Your task to perform on an android device: Open the calendar app, open the side menu, and click the "Day" option Image 0: 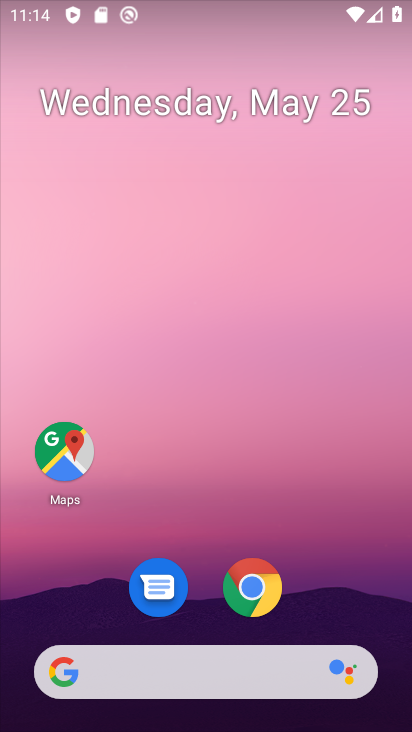
Step 0: drag from (238, 690) to (225, 130)
Your task to perform on an android device: Open the calendar app, open the side menu, and click the "Day" option Image 1: 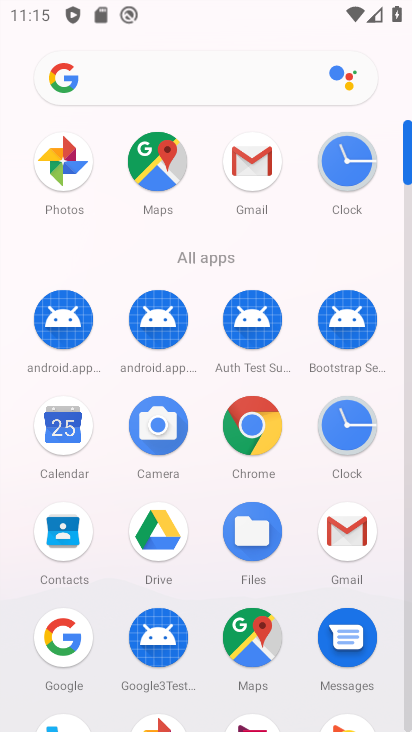
Step 1: click (48, 432)
Your task to perform on an android device: Open the calendar app, open the side menu, and click the "Day" option Image 2: 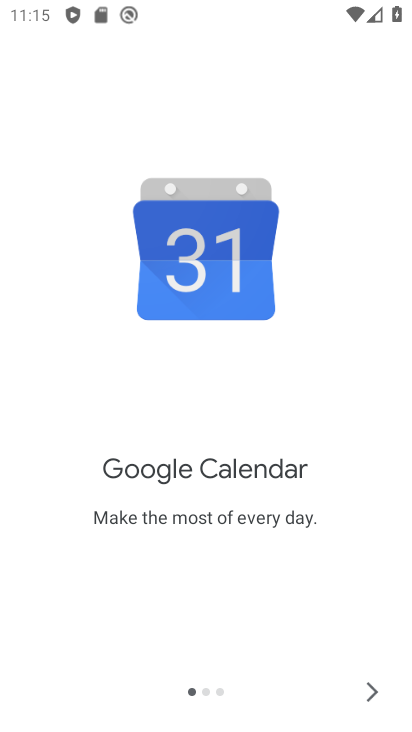
Step 2: click (355, 693)
Your task to perform on an android device: Open the calendar app, open the side menu, and click the "Day" option Image 3: 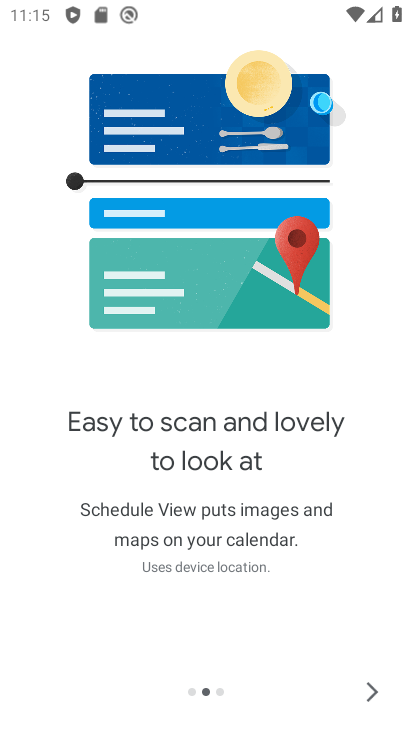
Step 3: click (380, 689)
Your task to perform on an android device: Open the calendar app, open the side menu, and click the "Day" option Image 4: 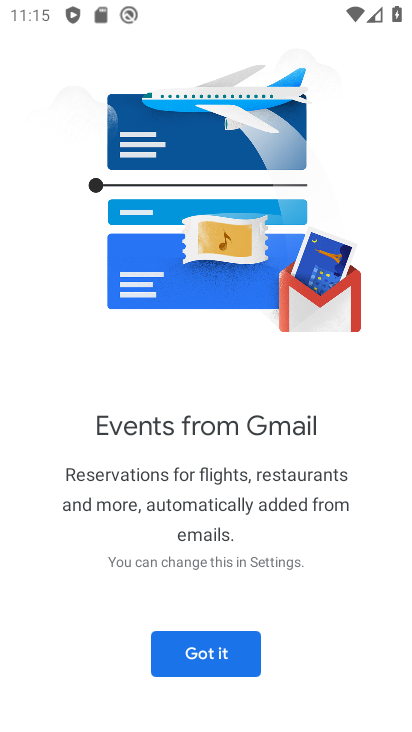
Step 4: click (228, 637)
Your task to perform on an android device: Open the calendar app, open the side menu, and click the "Day" option Image 5: 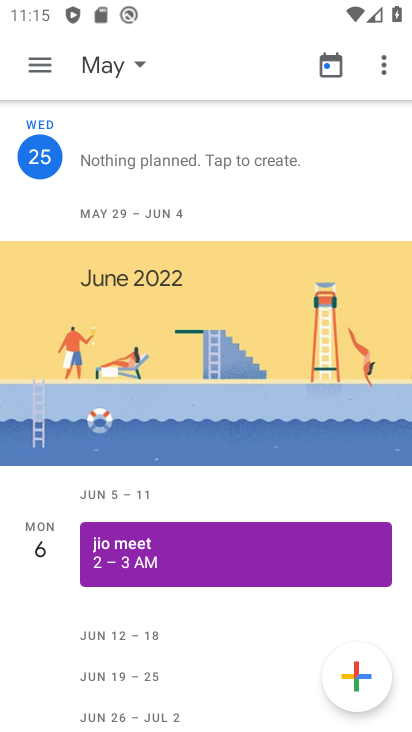
Step 5: click (49, 68)
Your task to perform on an android device: Open the calendar app, open the side menu, and click the "Day" option Image 6: 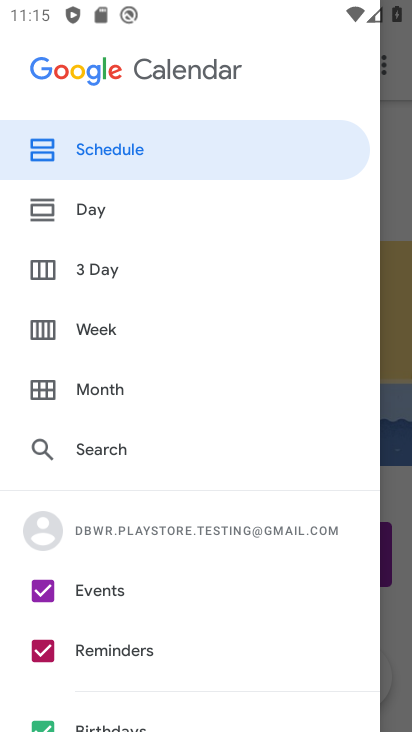
Step 6: click (116, 205)
Your task to perform on an android device: Open the calendar app, open the side menu, and click the "Day" option Image 7: 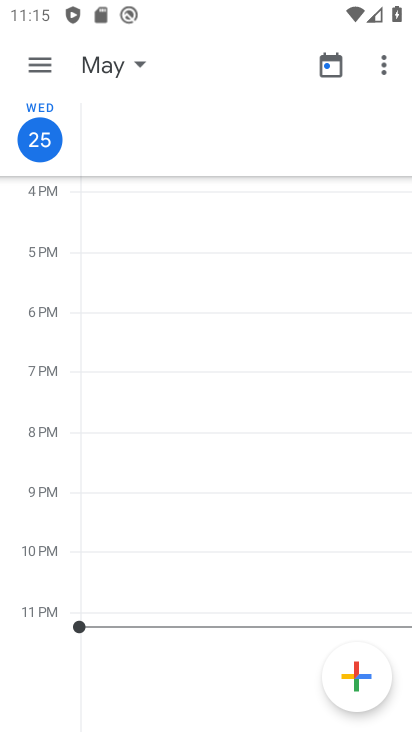
Step 7: click (52, 136)
Your task to perform on an android device: Open the calendar app, open the side menu, and click the "Day" option Image 8: 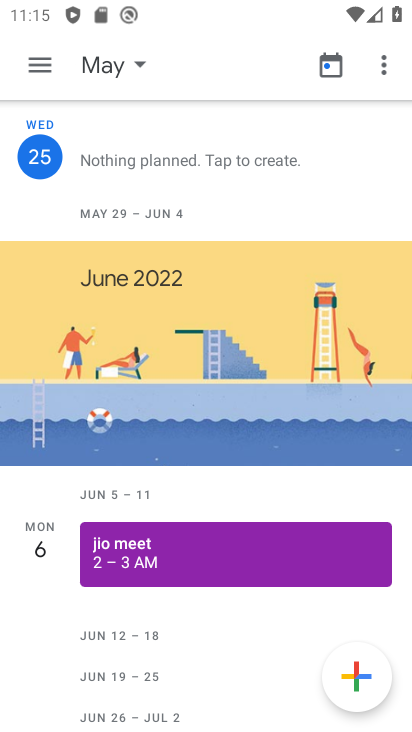
Step 8: task complete